Your task to perform on an android device: Add macbook pro to the cart on amazon Image 0: 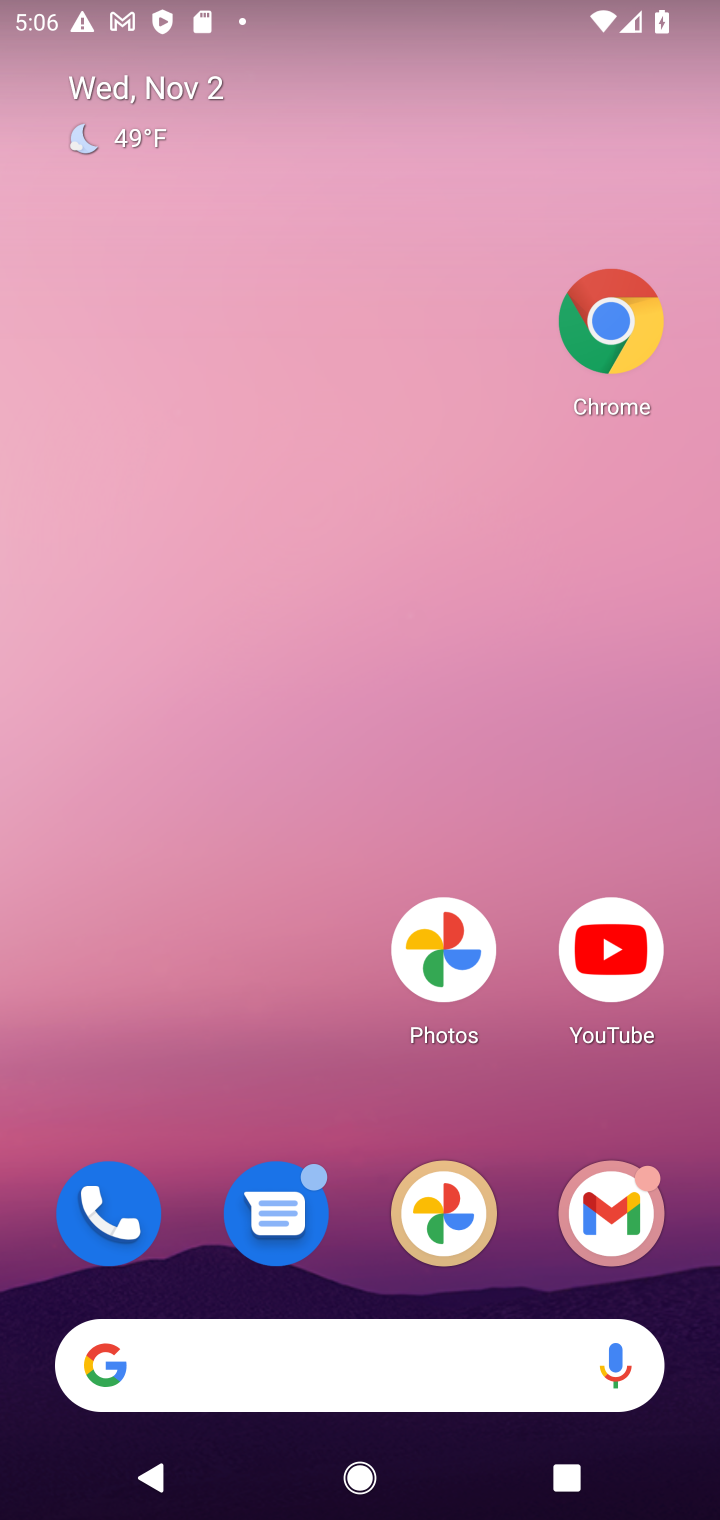
Step 0: drag from (327, 1303) to (422, 540)
Your task to perform on an android device: Add macbook pro to the cart on amazon Image 1: 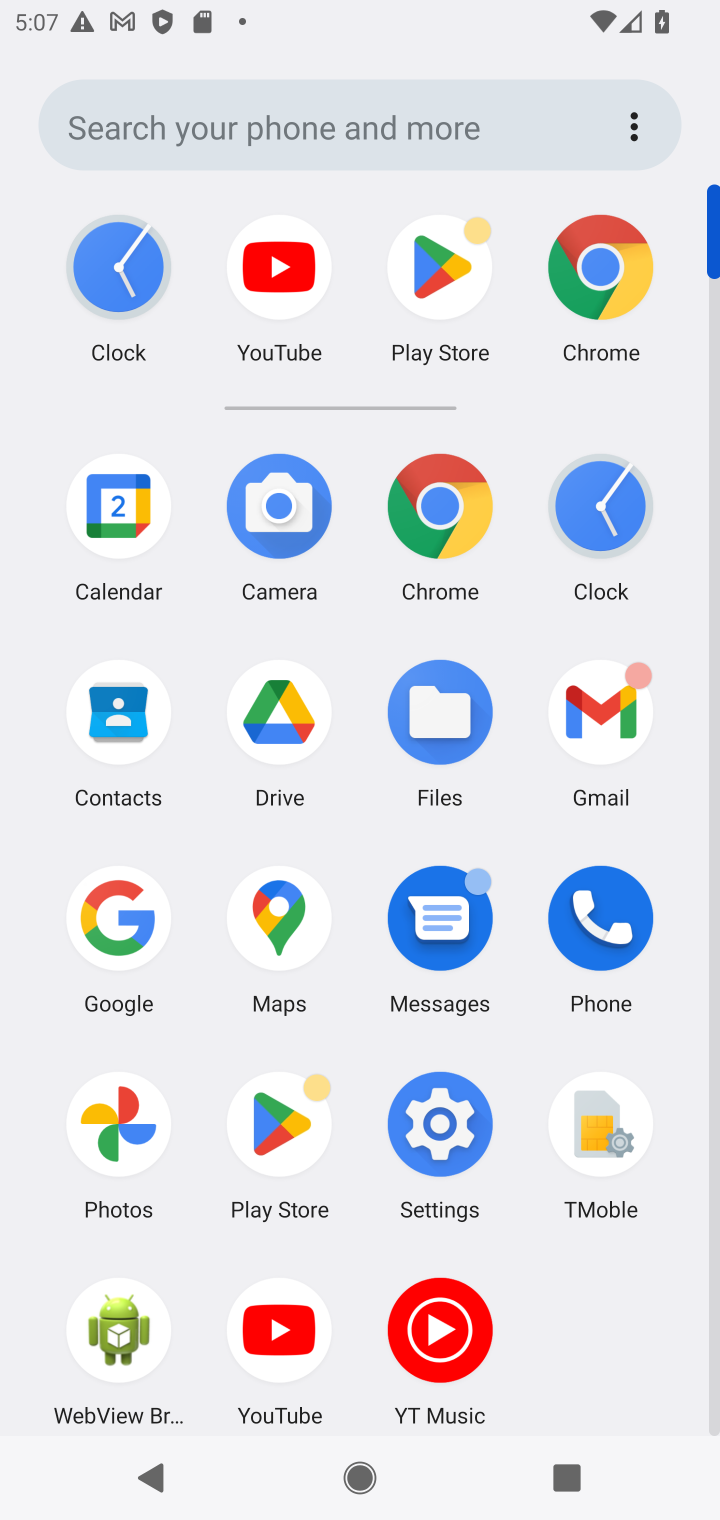
Step 1: drag from (489, 1252) to (533, 634)
Your task to perform on an android device: Add macbook pro to the cart on amazon Image 2: 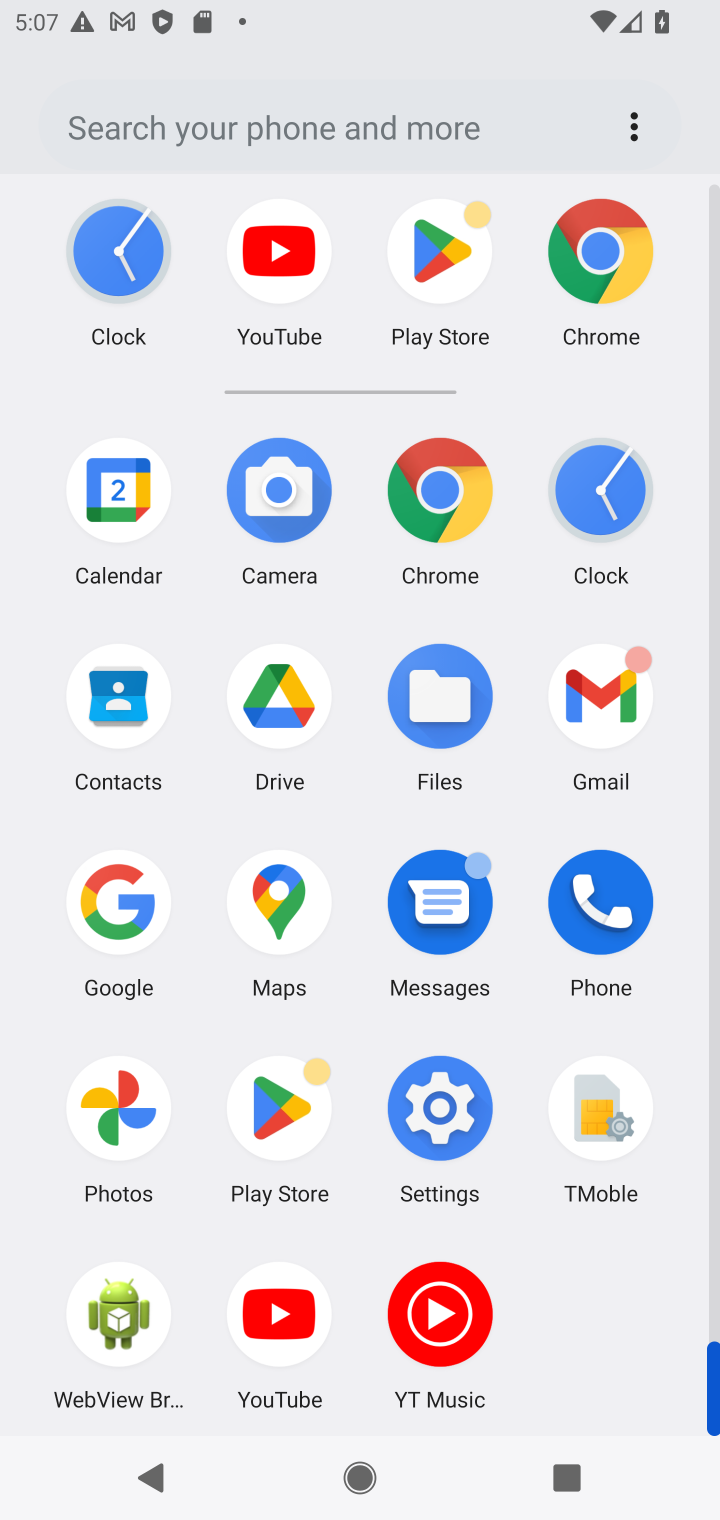
Step 2: drag from (373, 1253) to (432, 548)
Your task to perform on an android device: Add macbook pro to the cart on amazon Image 3: 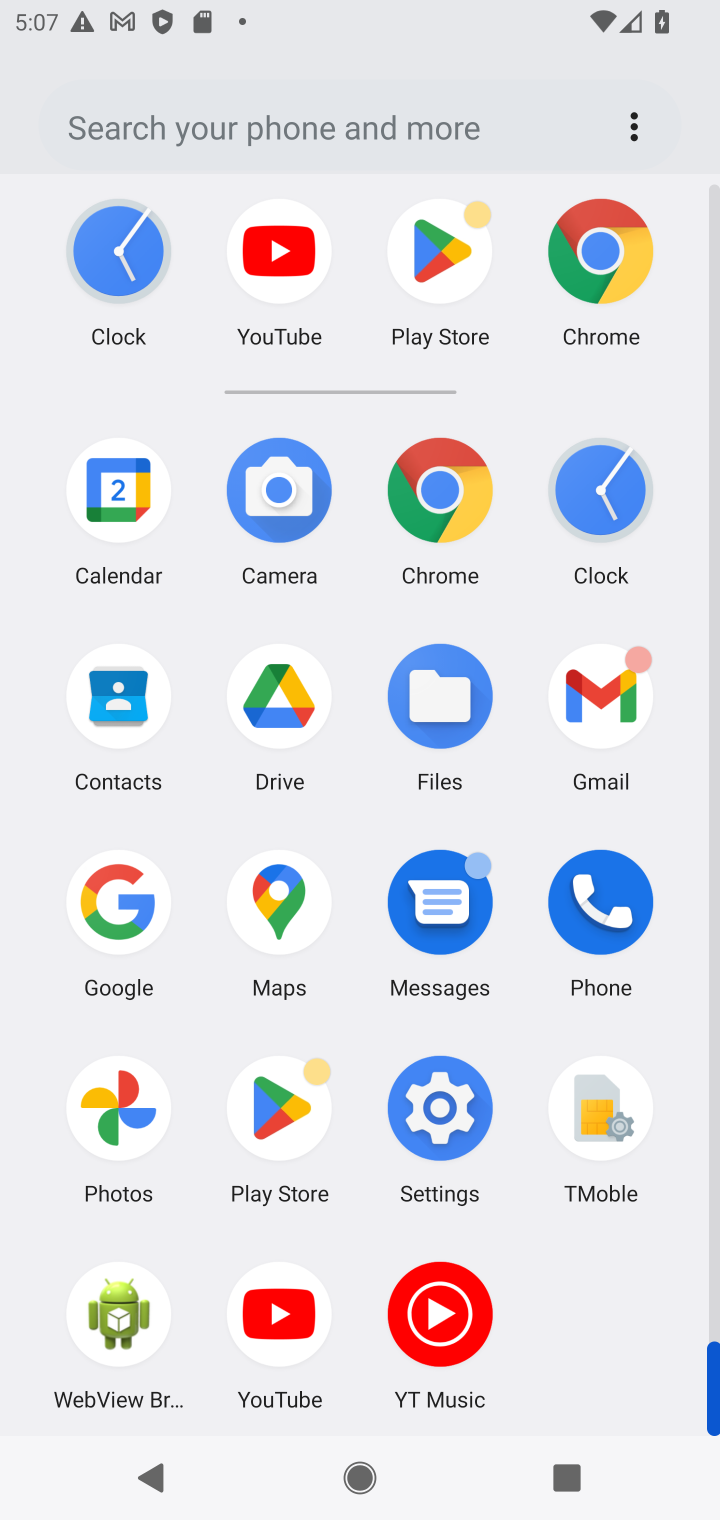
Step 3: click (126, 945)
Your task to perform on an android device: Add macbook pro to the cart on amazon Image 4: 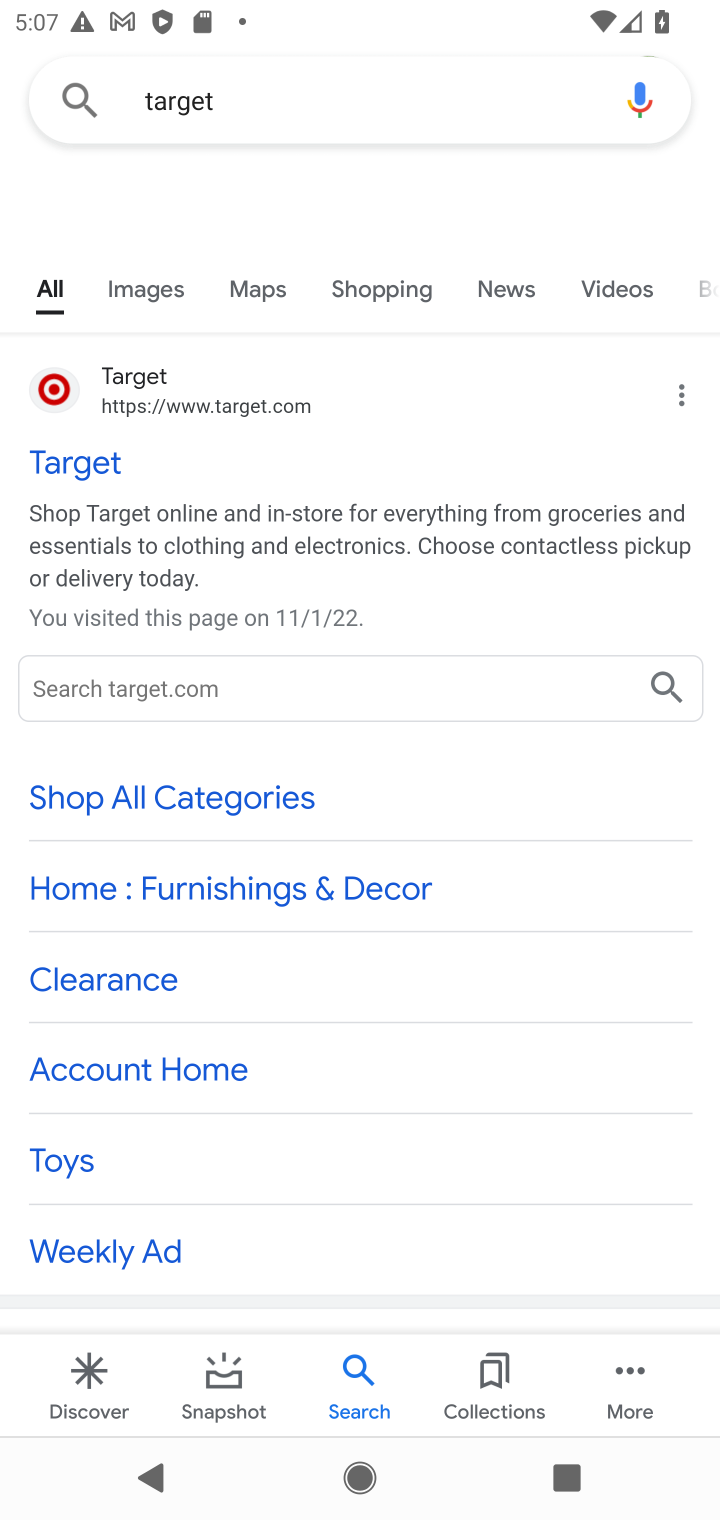
Step 4: click (569, 100)
Your task to perform on an android device: Add macbook pro to the cart on amazon Image 5: 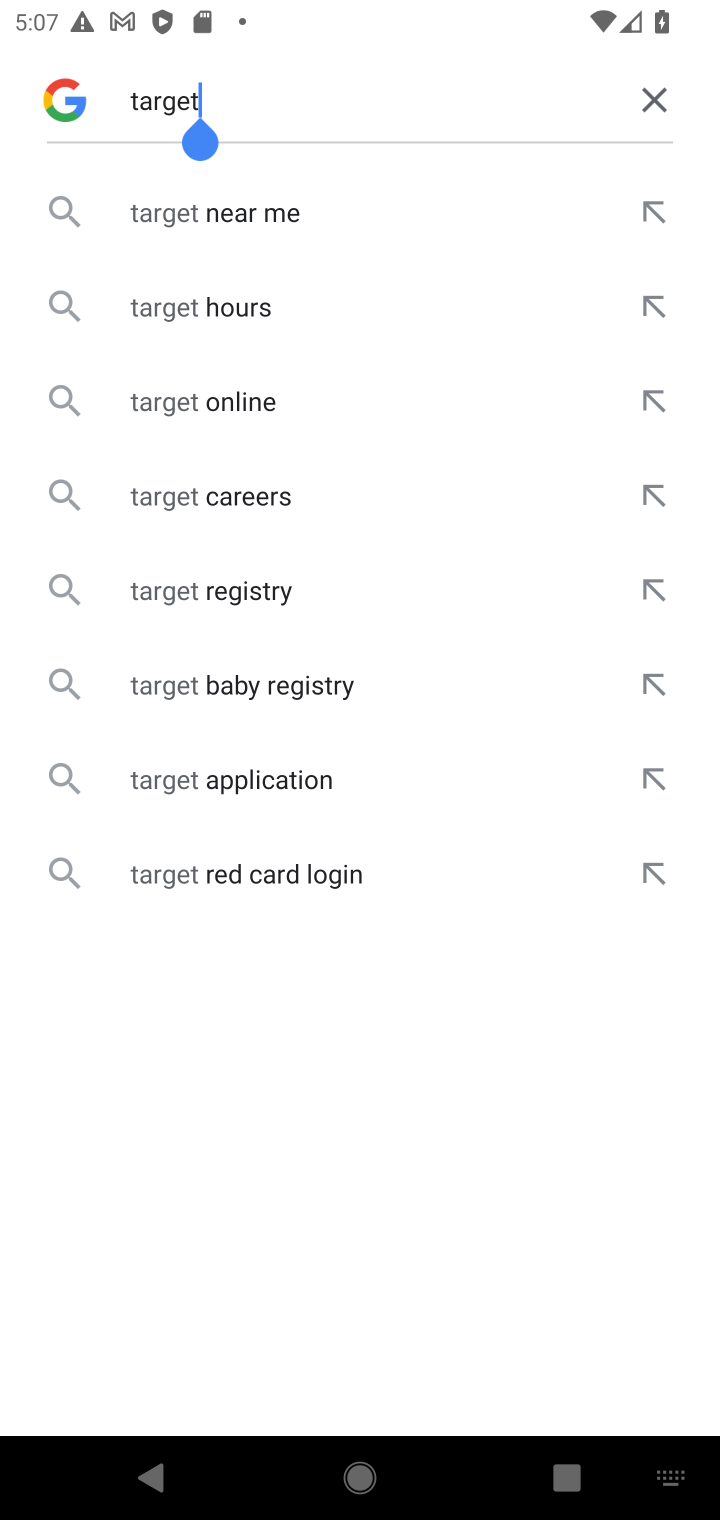
Step 5: click (663, 96)
Your task to perform on an android device: Add macbook pro to the cart on amazon Image 6: 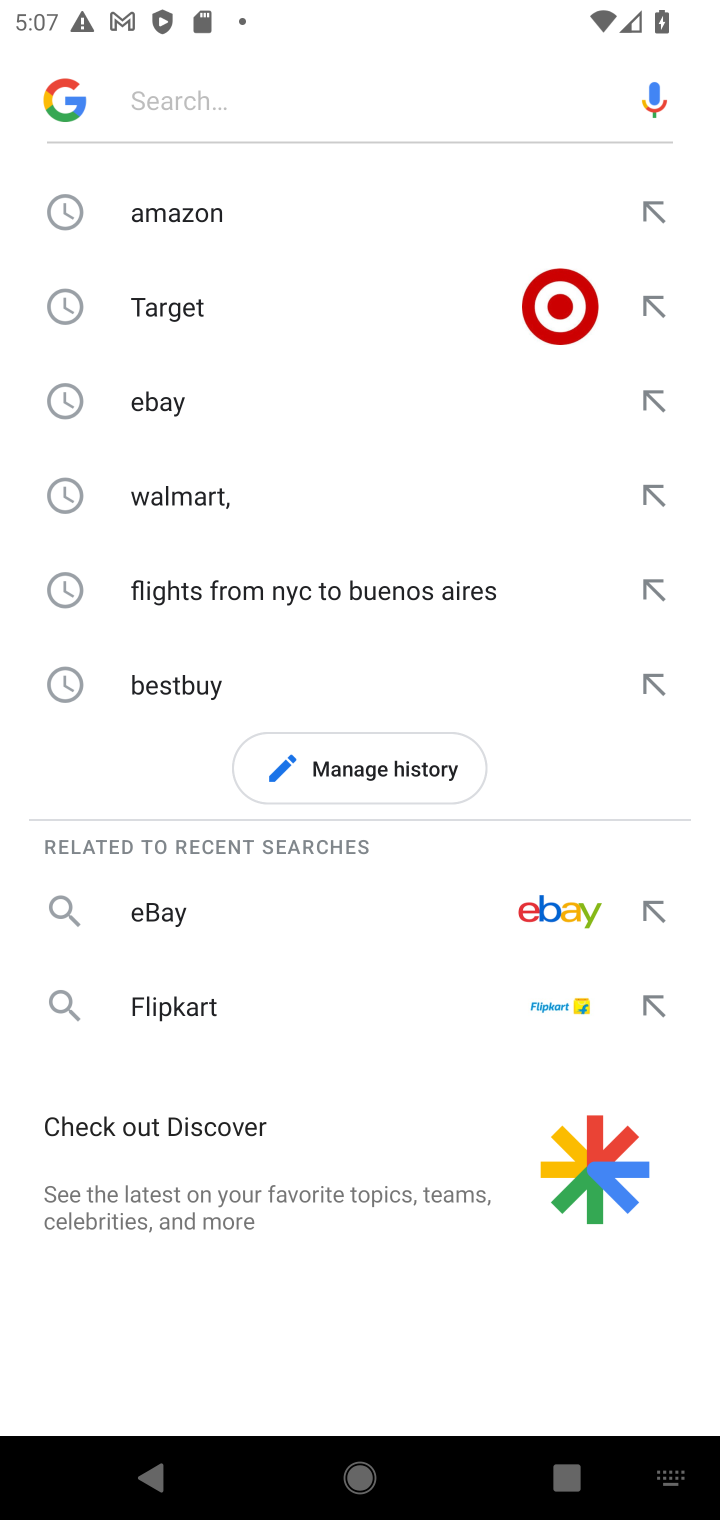
Step 6: type "amazon"
Your task to perform on an android device: Add macbook pro to the cart on amazon Image 7: 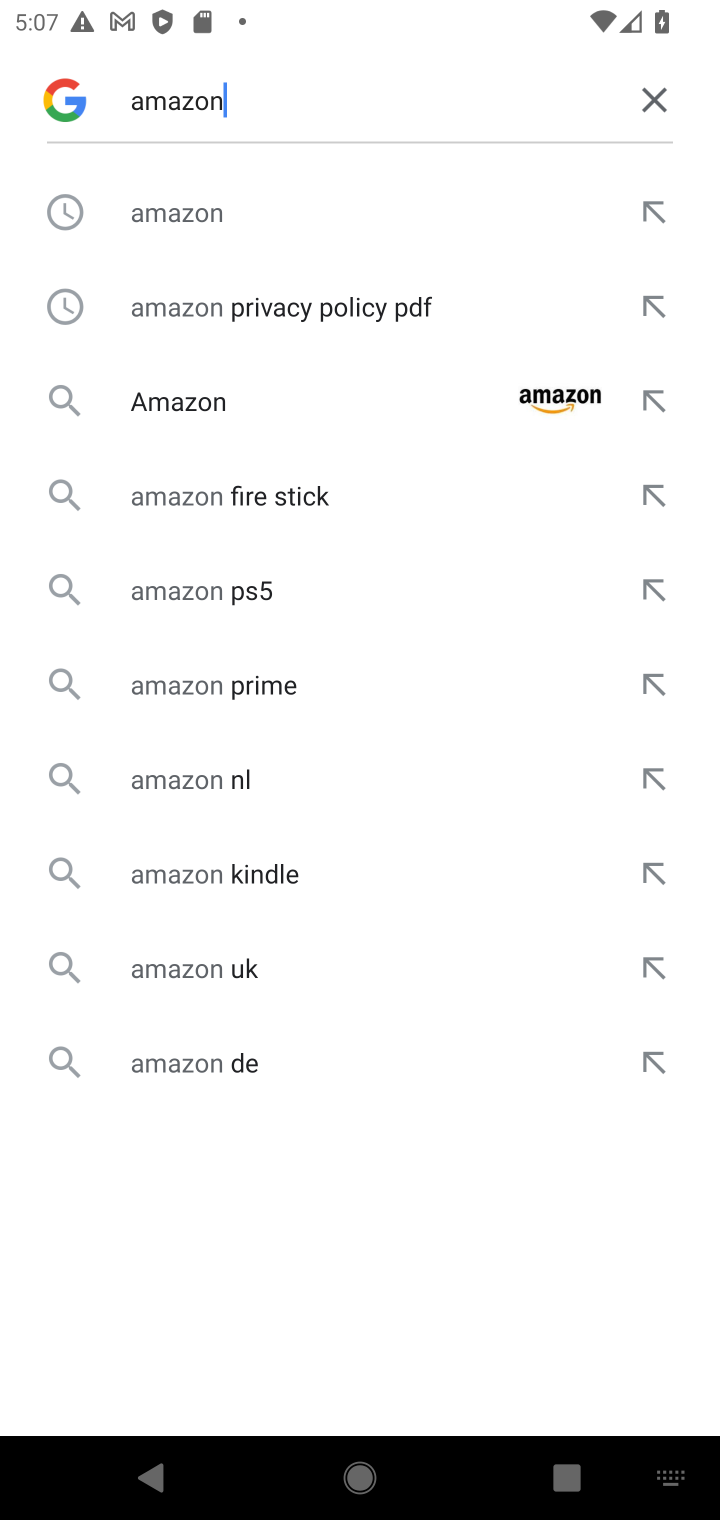
Step 7: click (239, 234)
Your task to perform on an android device: Add macbook pro to the cart on amazon Image 8: 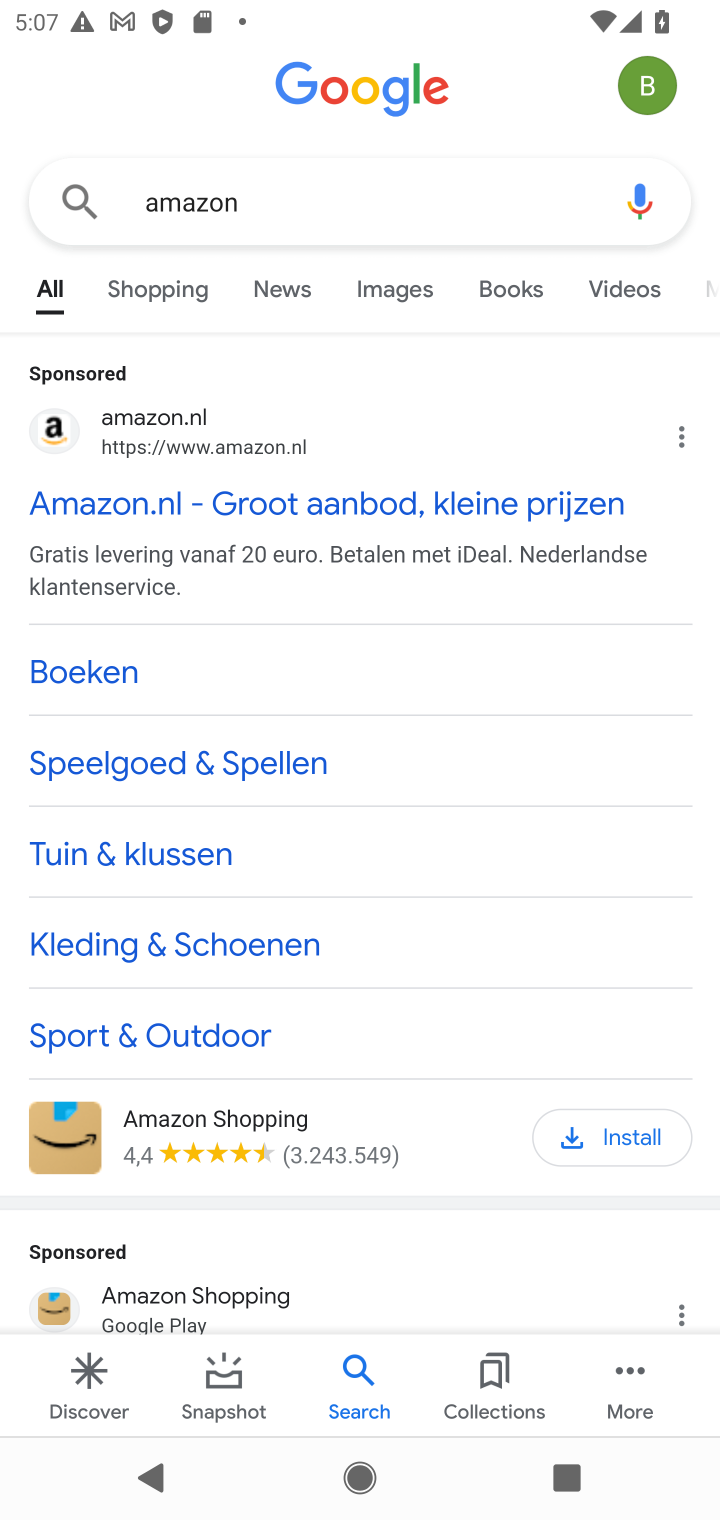
Step 8: click (136, 509)
Your task to perform on an android device: Add macbook pro to the cart on amazon Image 9: 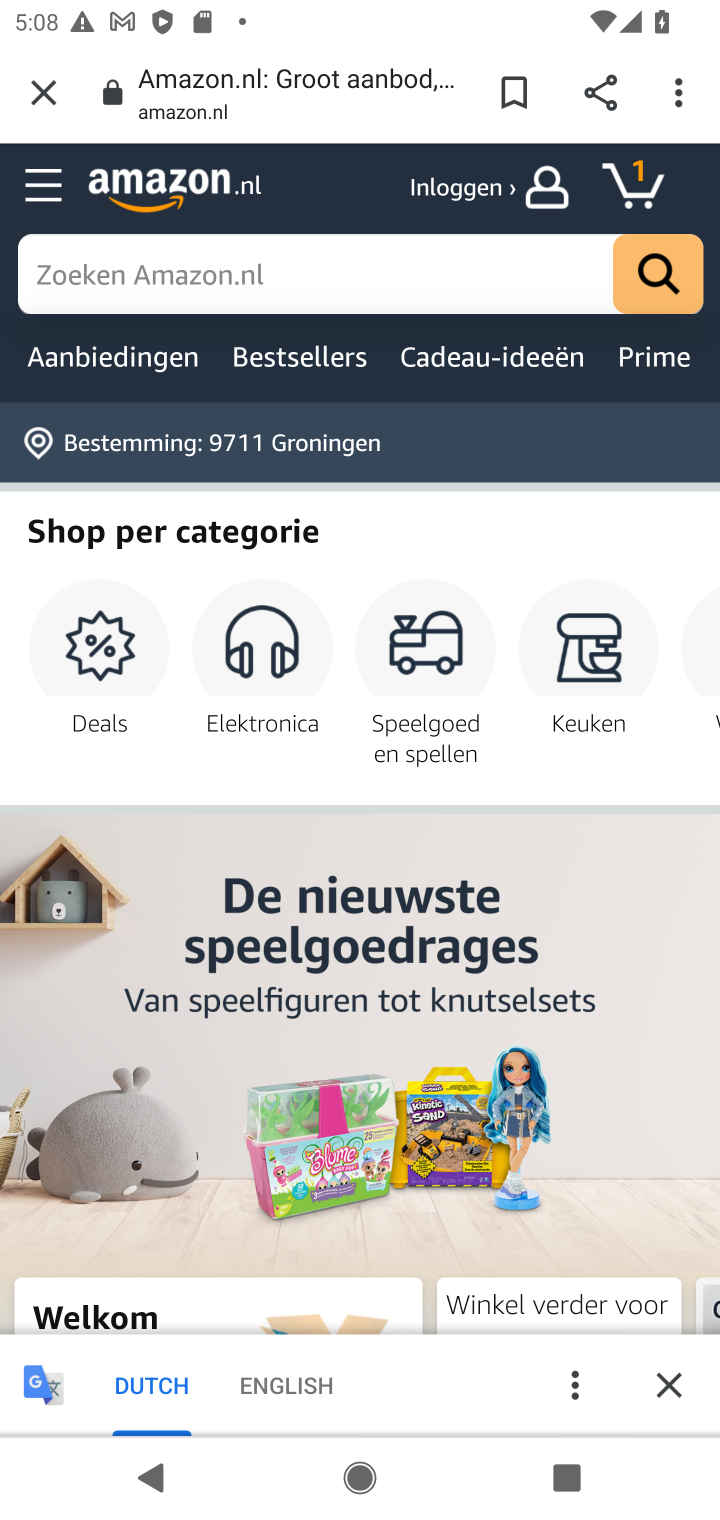
Step 9: click (286, 265)
Your task to perform on an android device: Add macbook pro to the cart on amazon Image 10: 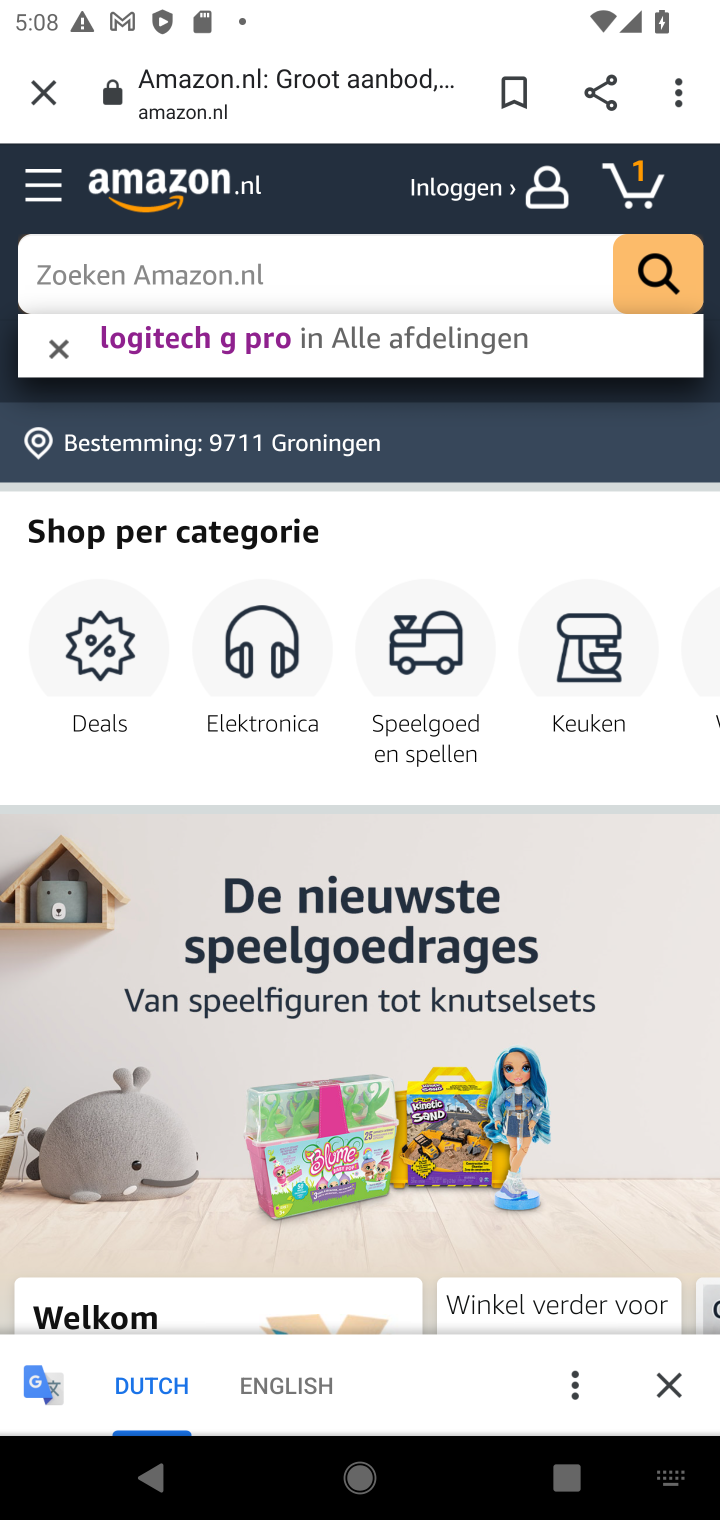
Step 10: type "macbook pro"
Your task to perform on an android device: Add macbook pro to the cart on amazon Image 11: 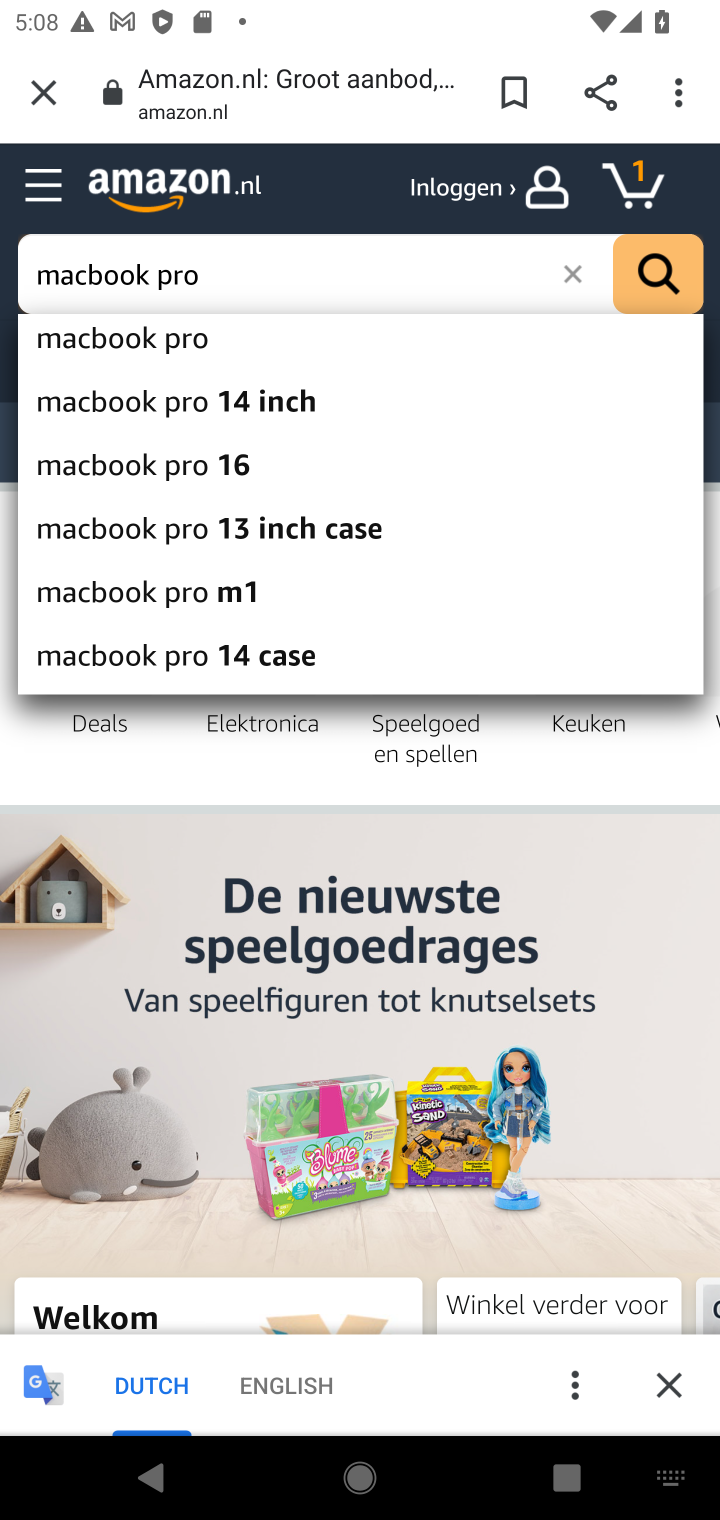
Step 11: click (279, 334)
Your task to perform on an android device: Add macbook pro to the cart on amazon Image 12: 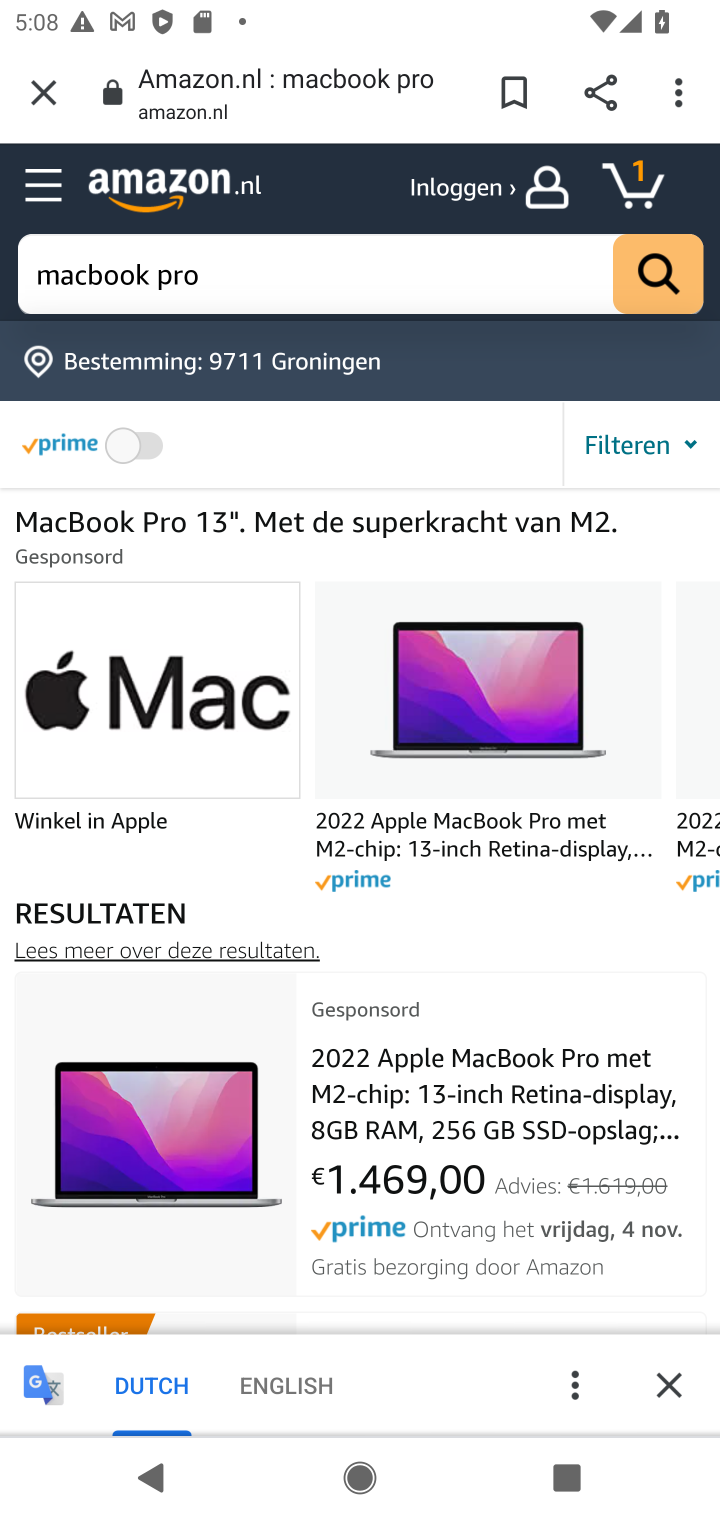
Step 12: click (394, 1099)
Your task to perform on an android device: Add macbook pro to the cart on amazon Image 13: 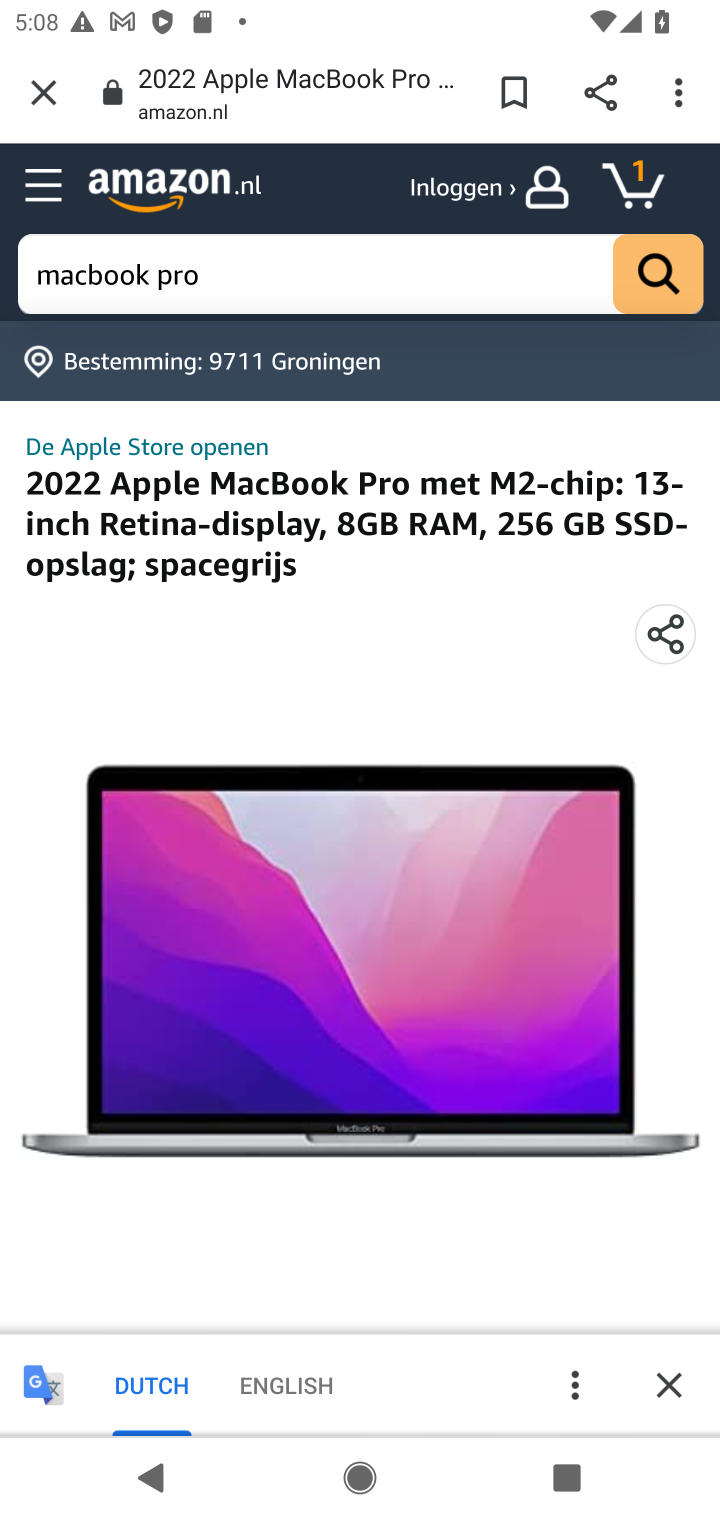
Step 13: drag from (490, 1294) to (369, 406)
Your task to perform on an android device: Add macbook pro to the cart on amazon Image 14: 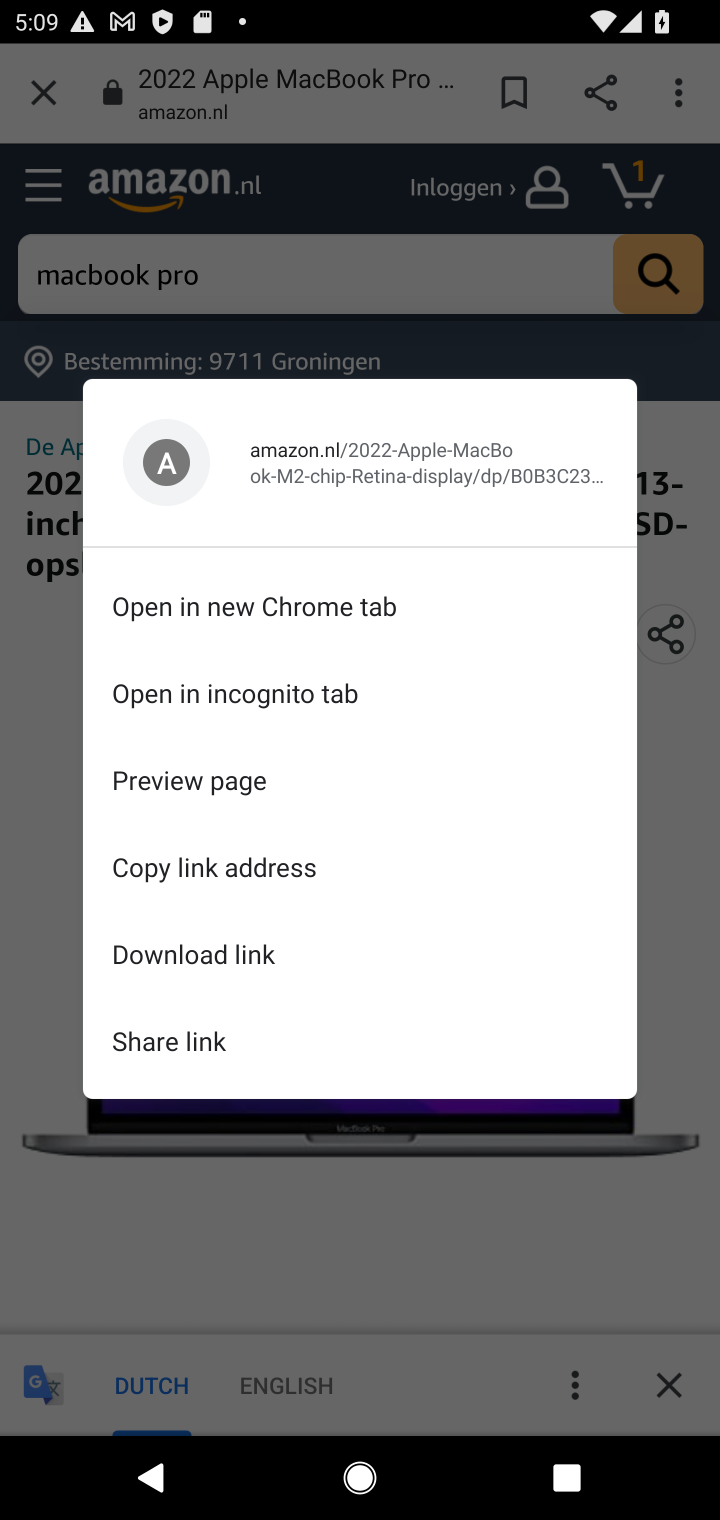
Step 14: click (682, 863)
Your task to perform on an android device: Add macbook pro to the cart on amazon Image 15: 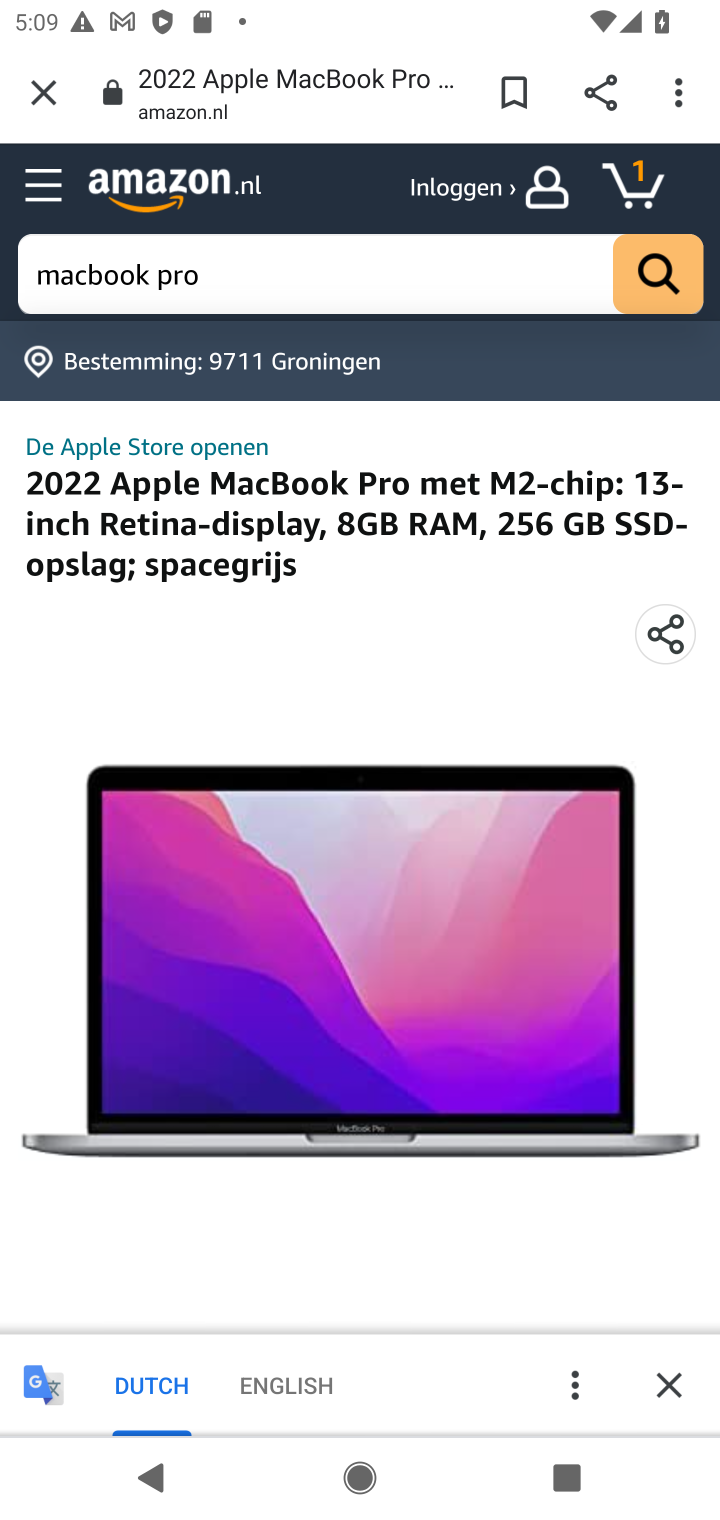
Step 15: drag from (454, 1125) to (410, 182)
Your task to perform on an android device: Add macbook pro to the cart on amazon Image 16: 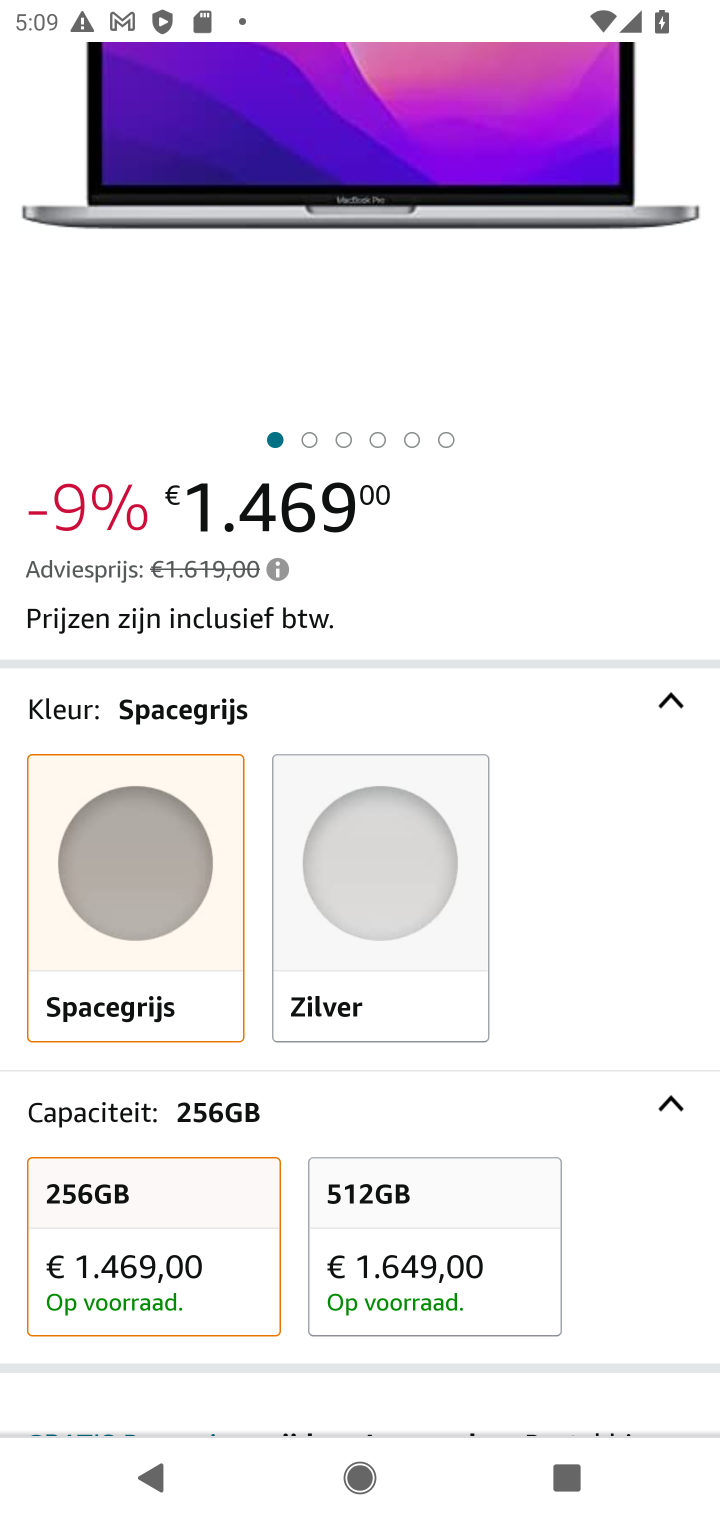
Step 16: drag from (255, 958) to (248, 326)
Your task to perform on an android device: Add macbook pro to the cart on amazon Image 17: 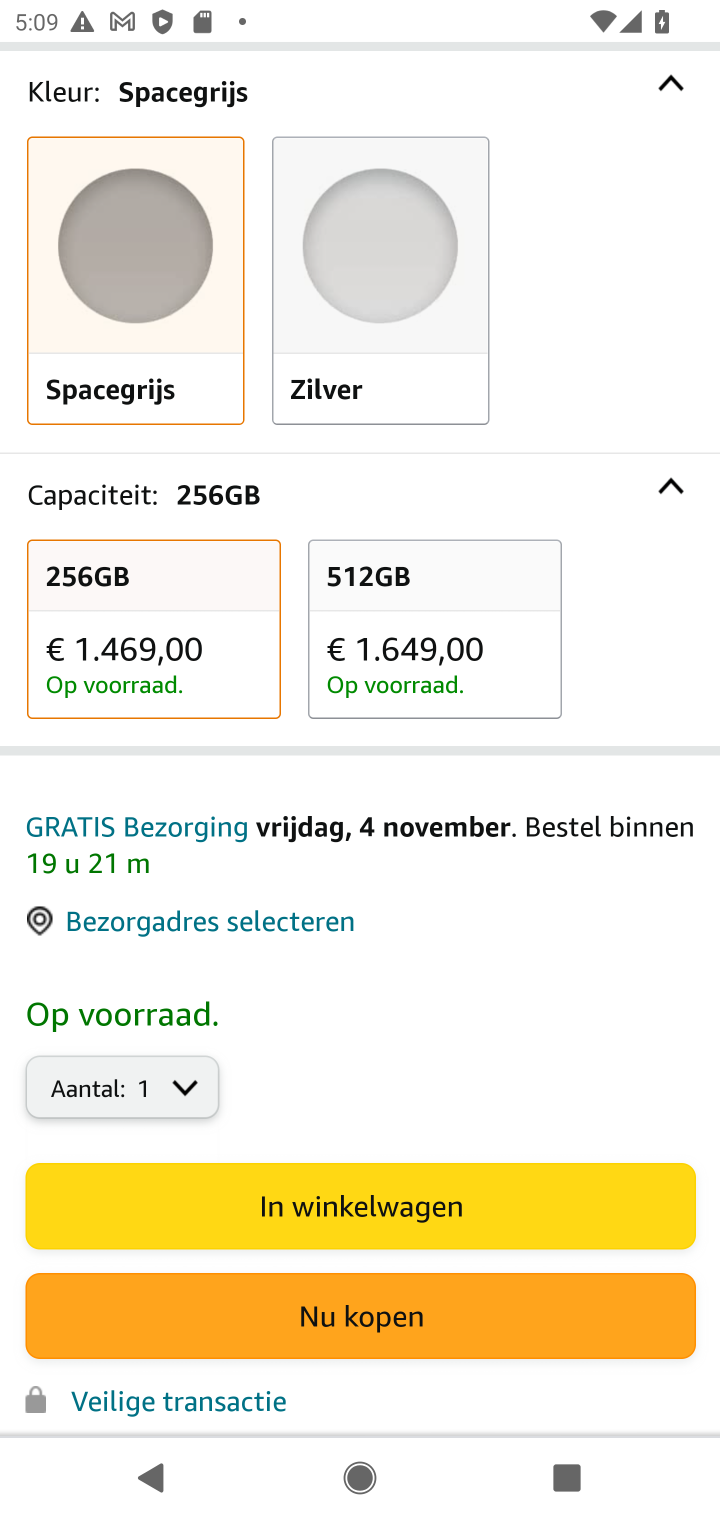
Step 17: click (322, 1190)
Your task to perform on an android device: Add macbook pro to the cart on amazon Image 18: 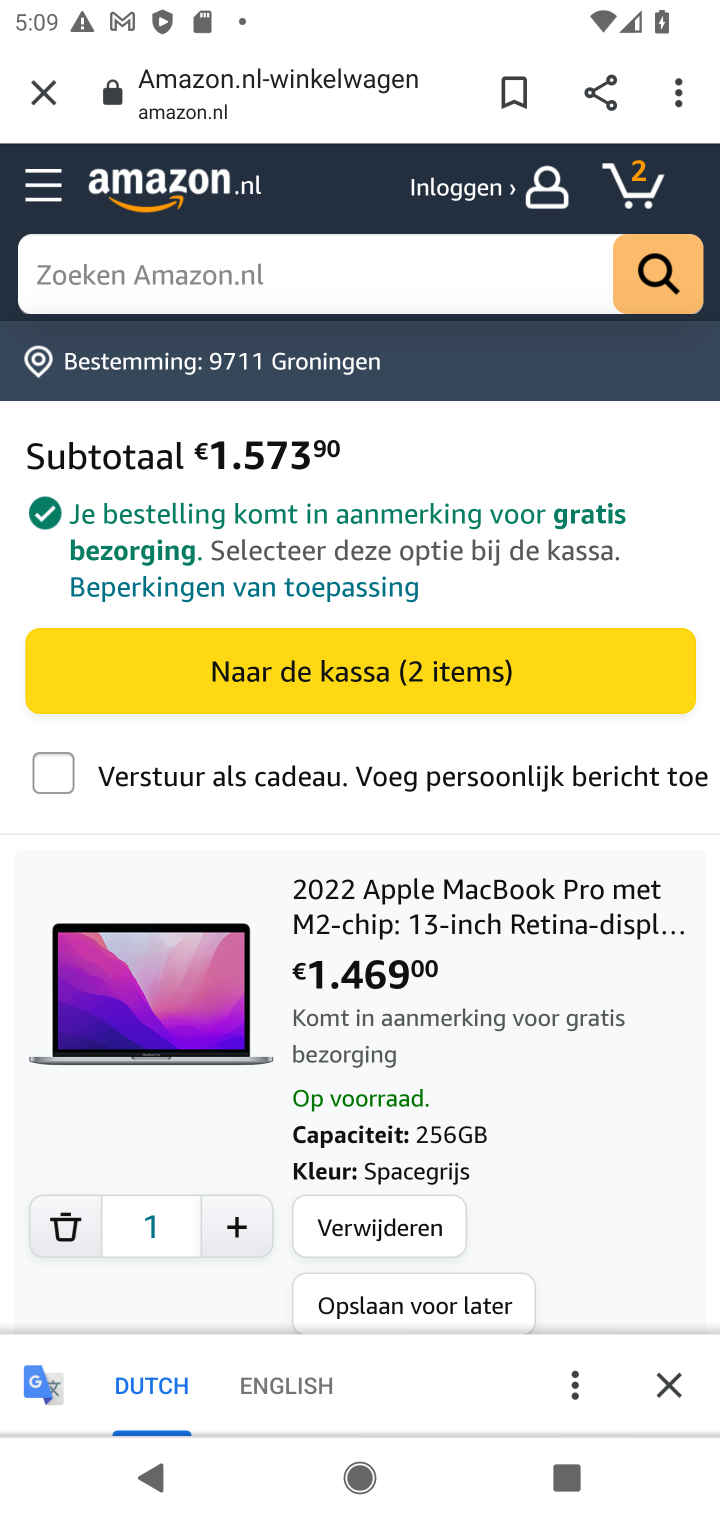
Step 18: task complete